Your task to perform on an android device: delete browsing data in the chrome app Image 0: 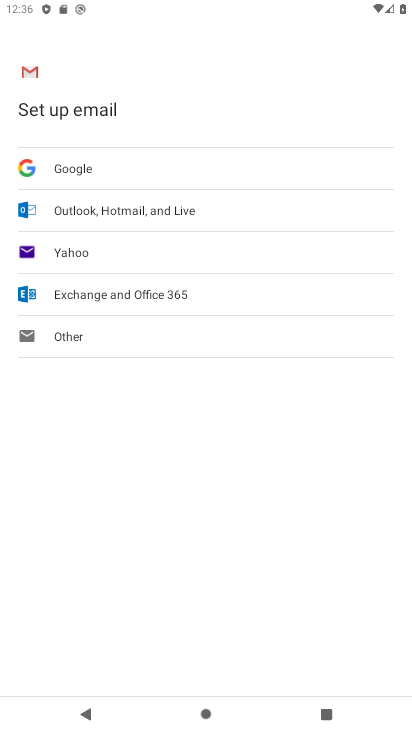
Step 0: press home button
Your task to perform on an android device: delete browsing data in the chrome app Image 1: 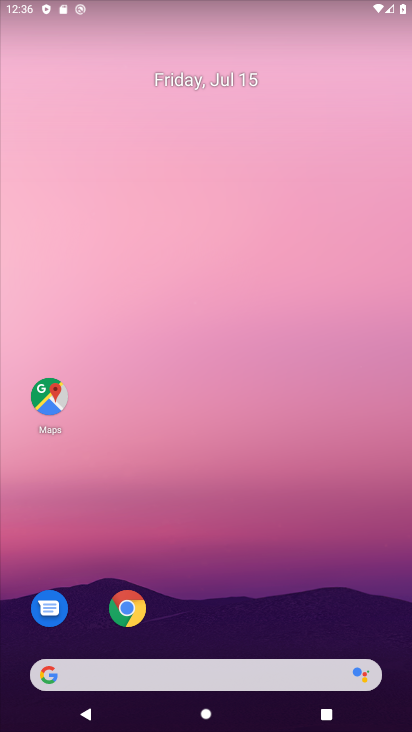
Step 1: click (118, 615)
Your task to perform on an android device: delete browsing data in the chrome app Image 2: 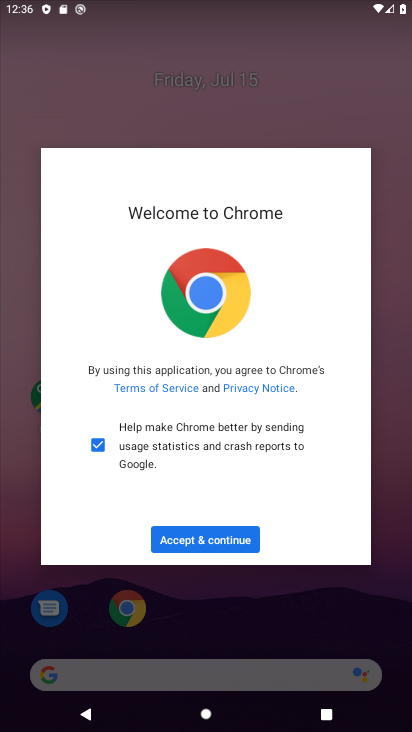
Step 2: click (195, 536)
Your task to perform on an android device: delete browsing data in the chrome app Image 3: 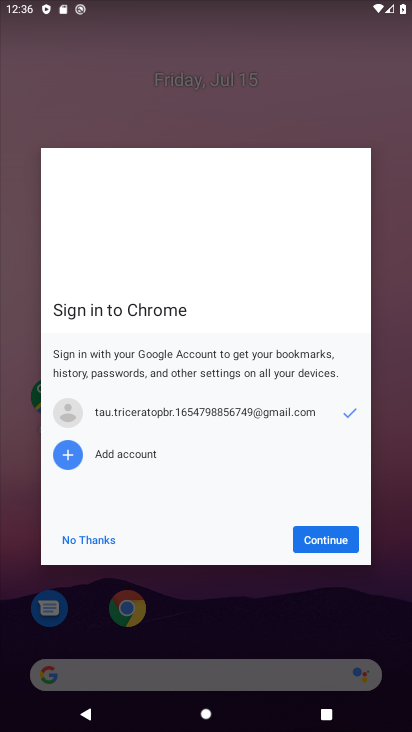
Step 3: click (314, 539)
Your task to perform on an android device: delete browsing data in the chrome app Image 4: 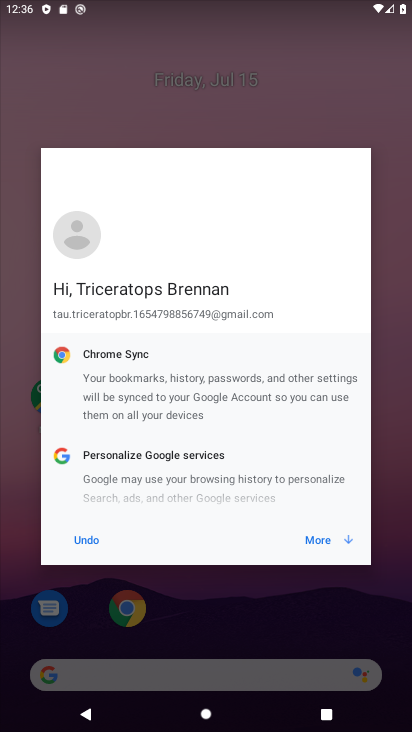
Step 4: click (314, 539)
Your task to perform on an android device: delete browsing data in the chrome app Image 5: 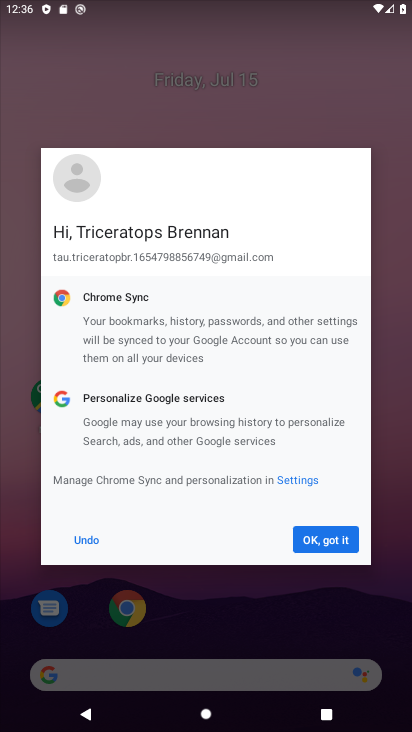
Step 5: click (314, 539)
Your task to perform on an android device: delete browsing data in the chrome app Image 6: 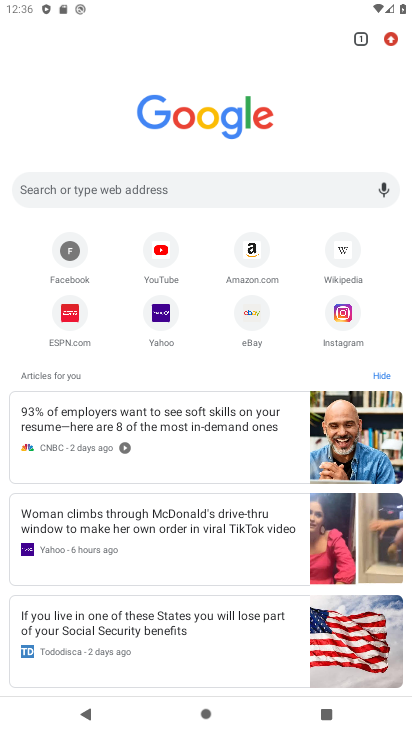
Step 6: drag from (393, 38) to (273, 271)
Your task to perform on an android device: delete browsing data in the chrome app Image 7: 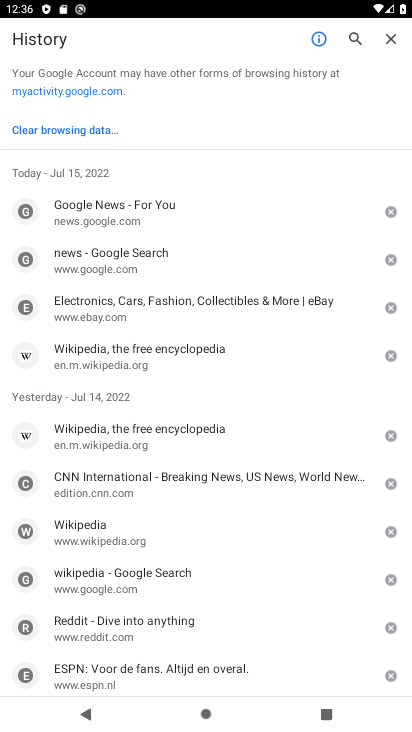
Step 7: click (81, 131)
Your task to perform on an android device: delete browsing data in the chrome app Image 8: 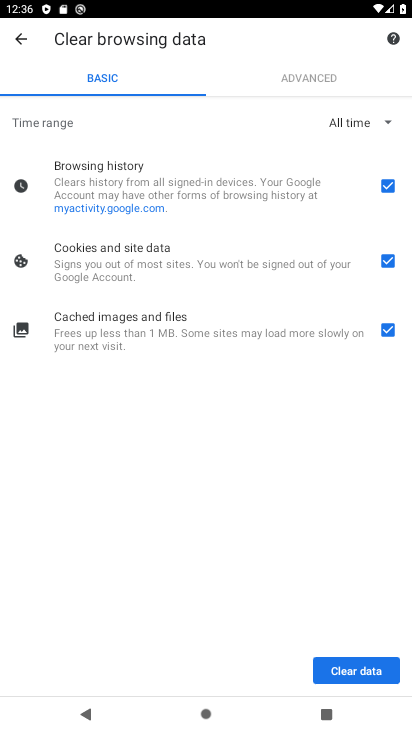
Step 8: click (362, 667)
Your task to perform on an android device: delete browsing data in the chrome app Image 9: 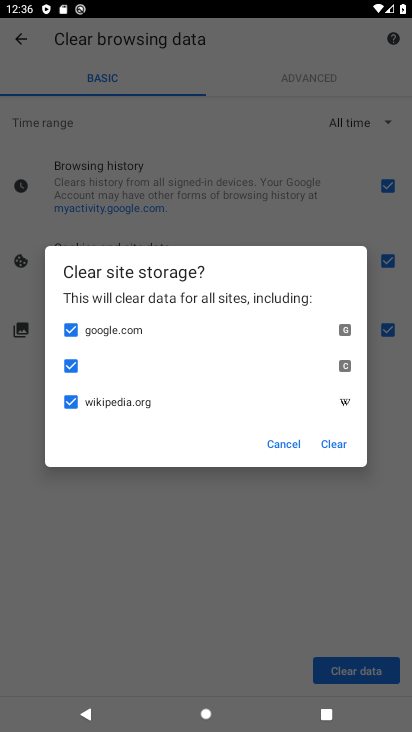
Step 9: click (325, 446)
Your task to perform on an android device: delete browsing data in the chrome app Image 10: 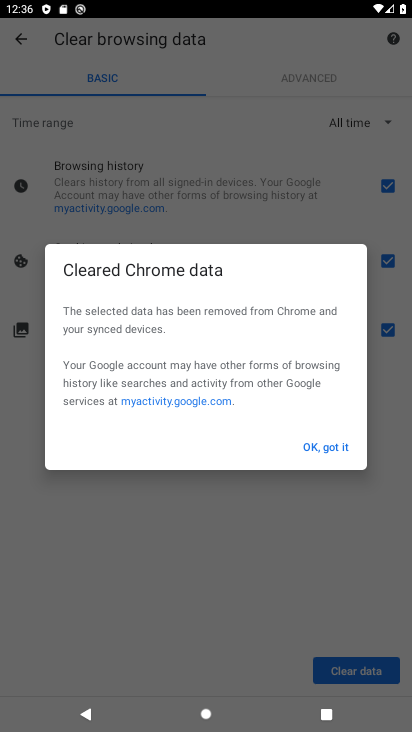
Step 10: click (332, 454)
Your task to perform on an android device: delete browsing data in the chrome app Image 11: 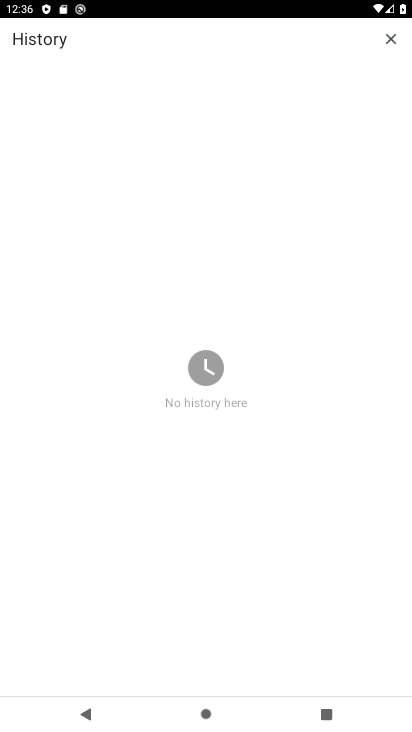
Step 11: task complete